Your task to perform on an android device: See recent photos Image 0: 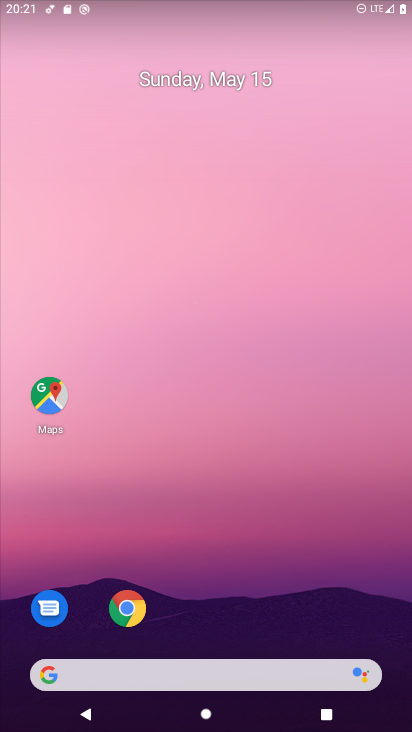
Step 0: drag from (253, 592) to (150, 76)
Your task to perform on an android device: See recent photos Image 1: 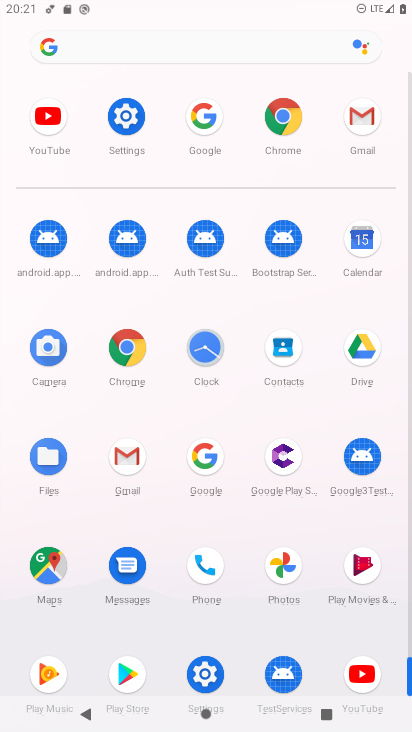
Step 1: click (297, 565)
Your task to perform on an android device: See recent photos Image 2: 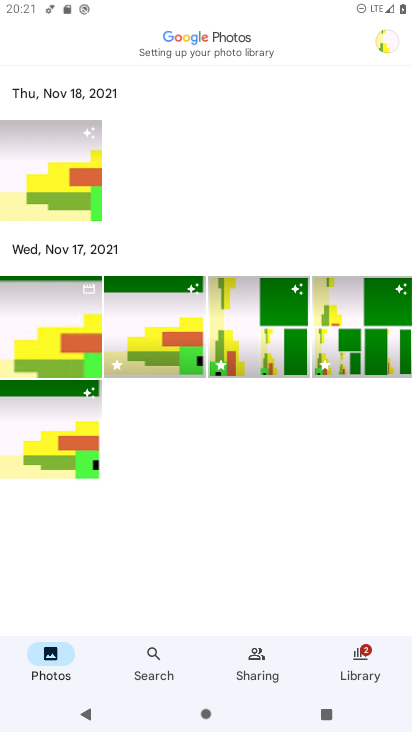
Step 2: task complete